Your task to perform on an android device: allow notifications from all sites in the chrome app Image 0: 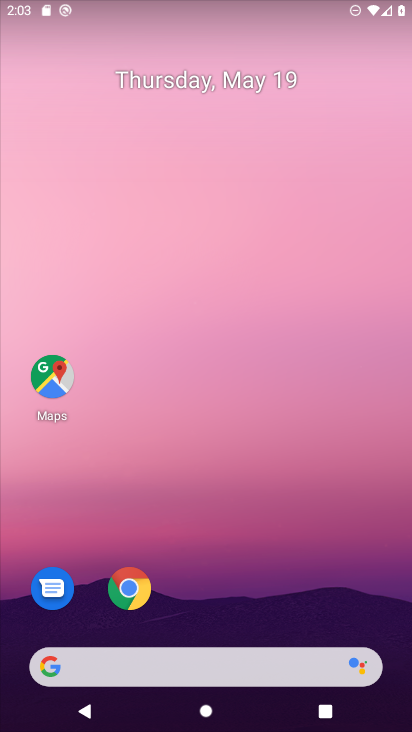
Step 0: click (142, 590)
Your task to perform on an android device: allow notifications from all sites in the chrome app Image 1: 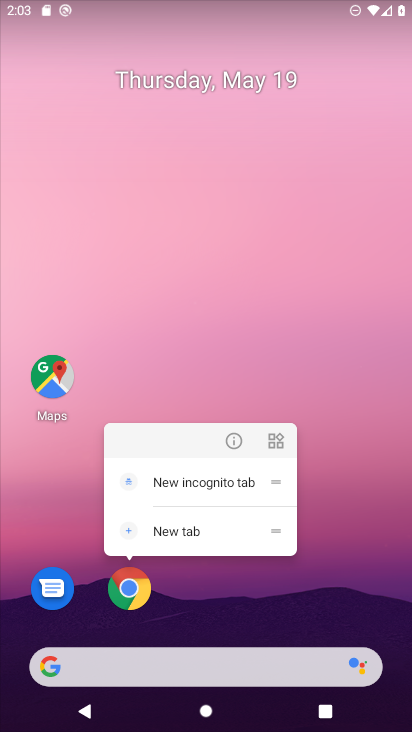
Step 1: click (345, 598)
Your task to perform on an android device: allow notifications from all sites in the chrome app Image 2: 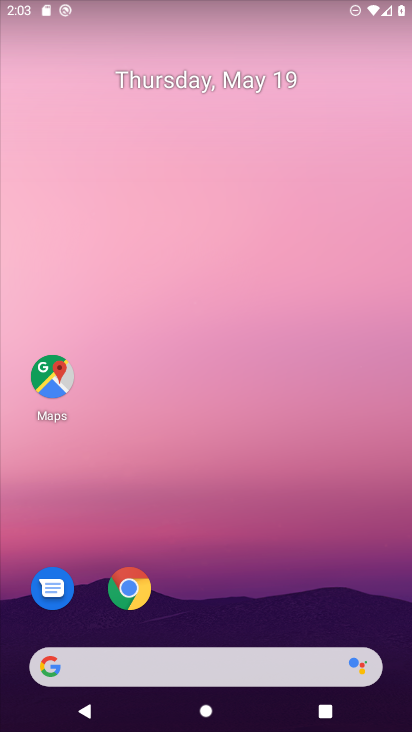
Step 2: click (127, 595)
Your task to perform on an android device: allow notifications from all sites in the chrome app Image 3: 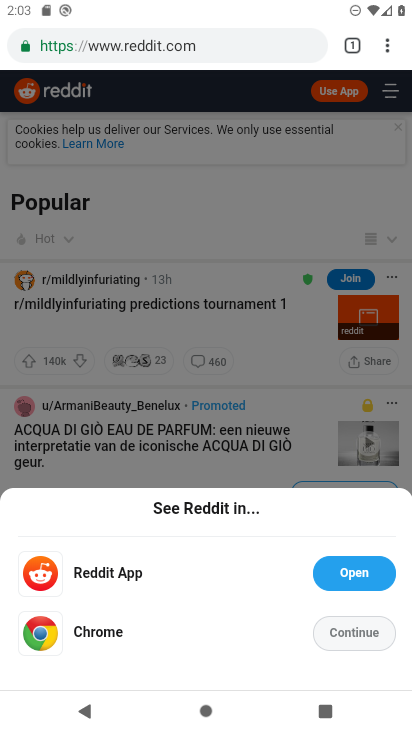
Step 3: click (388, 42)
Your task to perform on an android device: allow notifications from all sites in the chrome app Image 4: 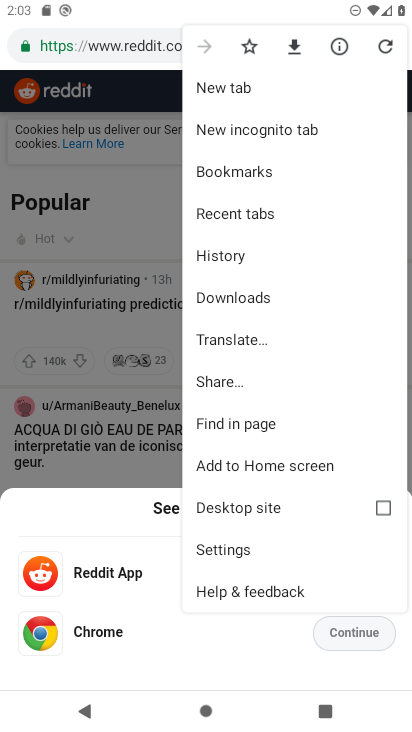
Step 4: click (218, 548)
Your task to perform on an android device: allow notifications from all sites in the chrome app Image 5: 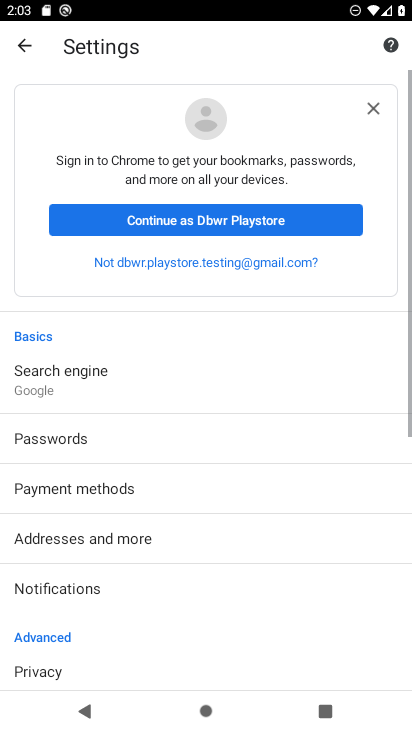
Step 5: drag from (161, 587) to (191, 149)
Your task to perform on an android device: allow notifications from all sites in the chrome app Image 6: 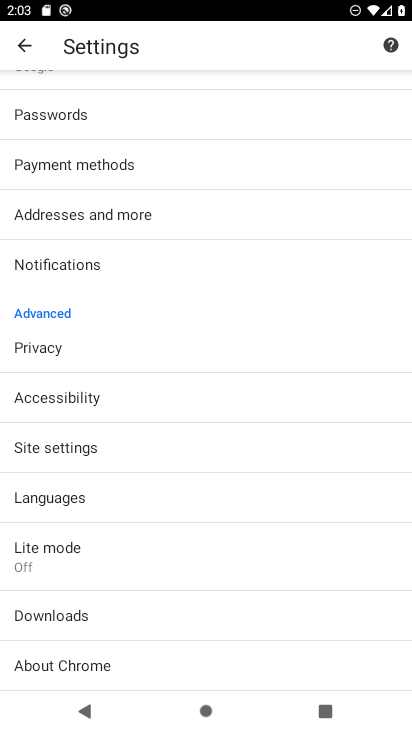
Step 6: click (68, 450)
Your task to perform on an android device: allow notifications from all sites in the chrome app Image 7: 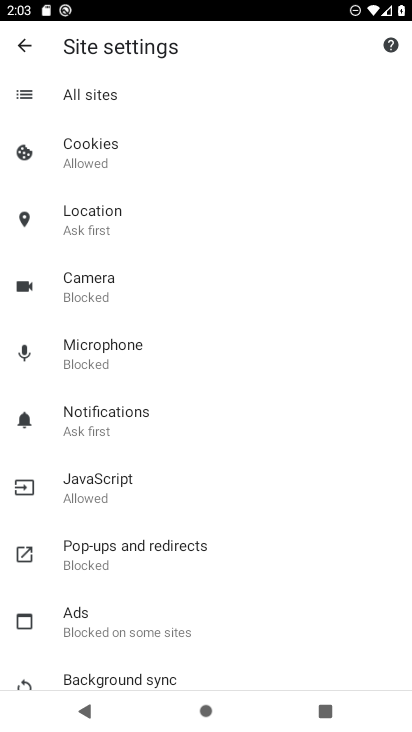
Step 7: click (85, 415)
Your task to perform on an android device: allow notifications from all sites in the chrome app Image 8: 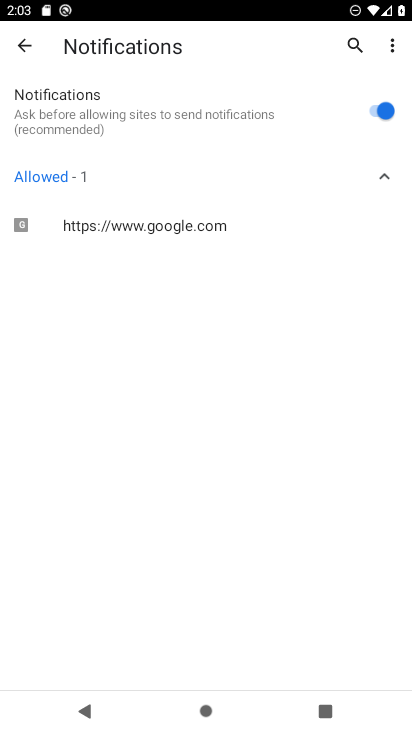
Step 8: task complete